Your task to perform on an android device: turn off location Image 0: 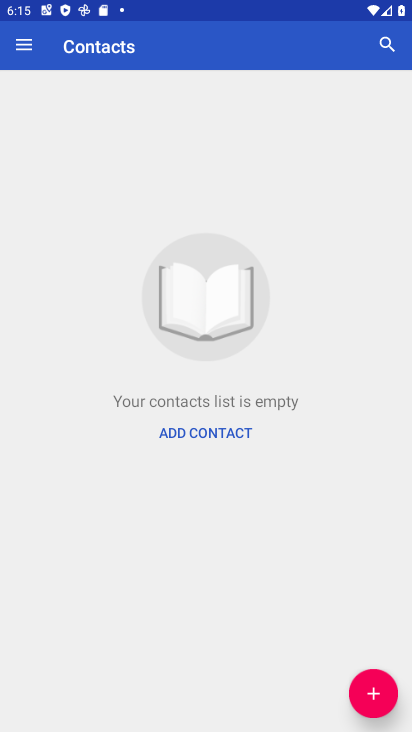
Step 0: press home button
Your task to perform on an android device: turn off location Image 1: 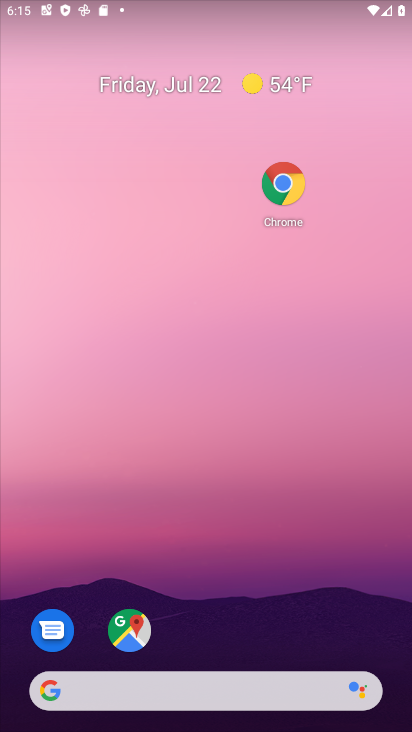
Step 1: drag from (213, 610) to (197, 205)
Your task to perform on an android device: turn off location Image 2: 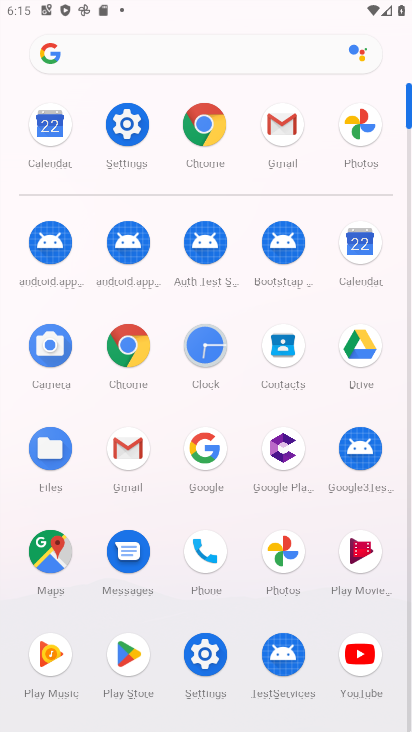
Step 2: click (121, 122)
Your task to perform on an android device: turn off location Image 3: 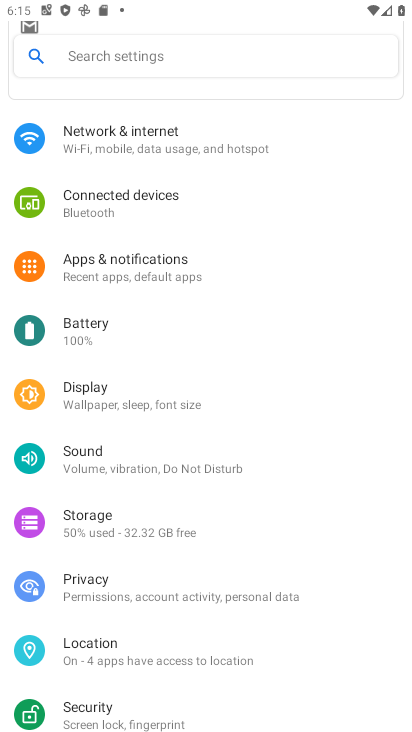
Step 3: click (158, 647)
Your task to perform on an android device: turn off location Image 4: 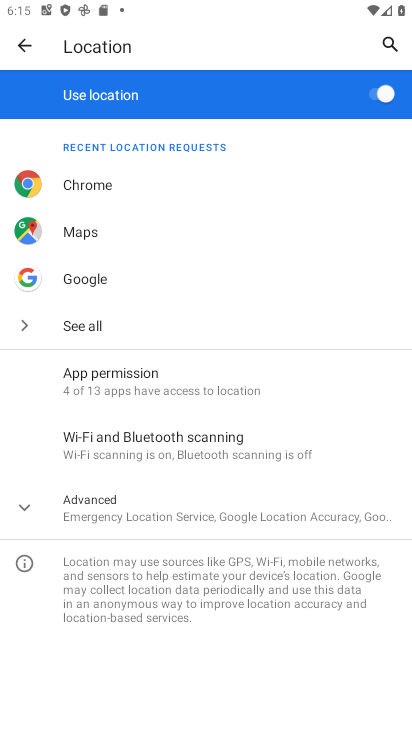
Step 4: click (371, 93)
Your task to perform on an android device: turn off location Image 5: 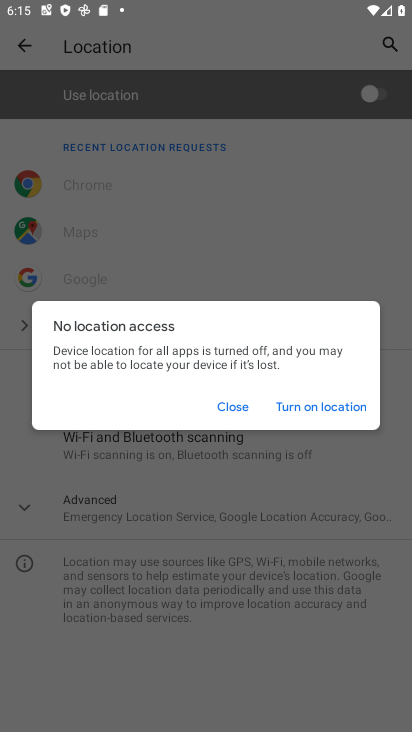
Step 5: click (371, 93)
Your task to perform on an android device: turn off location Image 6: 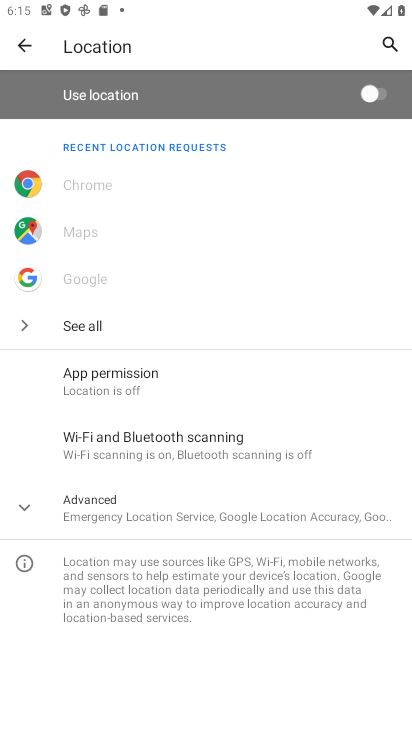
Step 6: task complete